Your task to perform on an android device: Open Google Maps and go to "Timeline" Image 0: 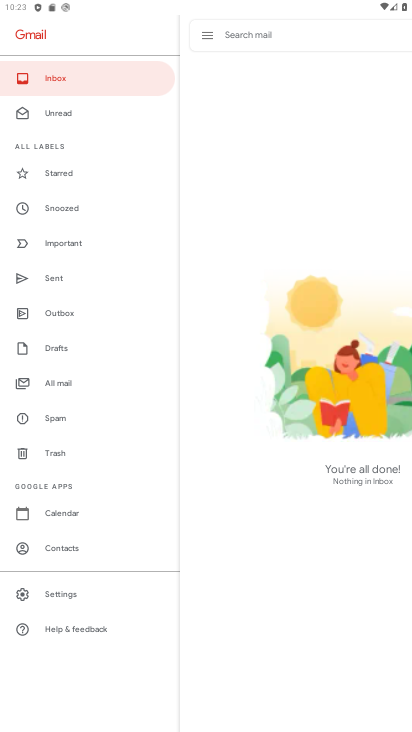
Step 0: press home button
Your task to perform on an android device: Open Google Maps and go to "Timeline" Image 1: 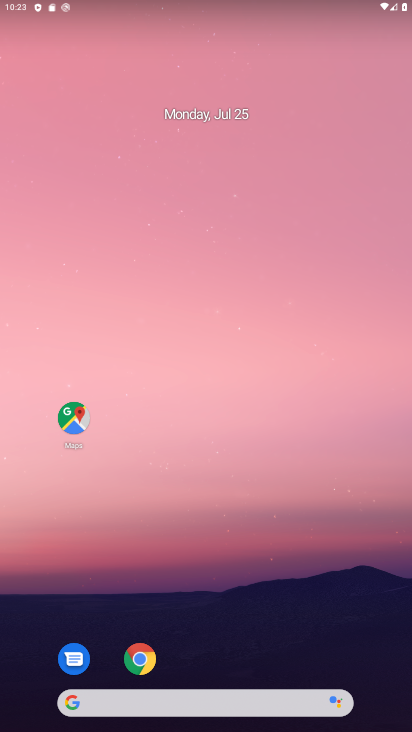
Step 1: press home button
Your task to perform on an android device: Open Google Maps and go to "Timeline" Image 2: 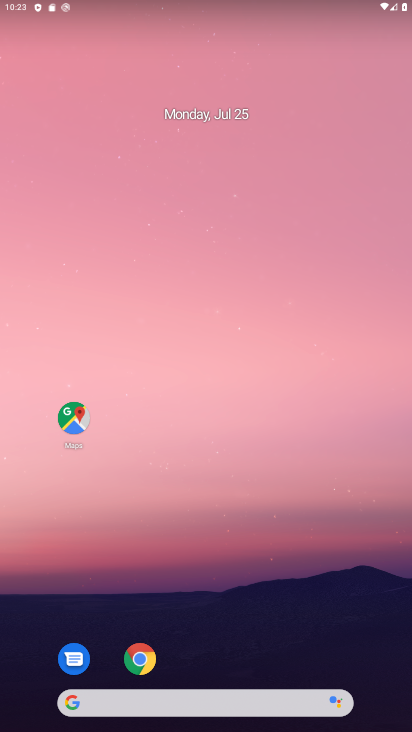
Step 2: drag from (213, 672) to (200, 104)
Your task to perform on an android device: Open Google Maps and go to "Timeline" Image 3: 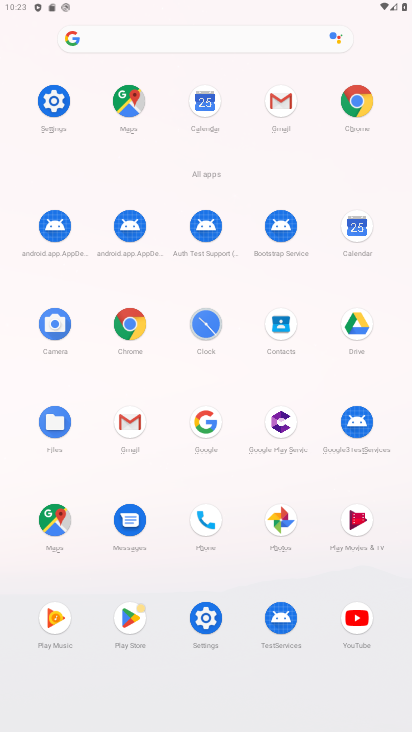
Step 3: click (43, 516)
Your task to perform on an android device: Open Google Maps and go to "Timeline" Image 4: 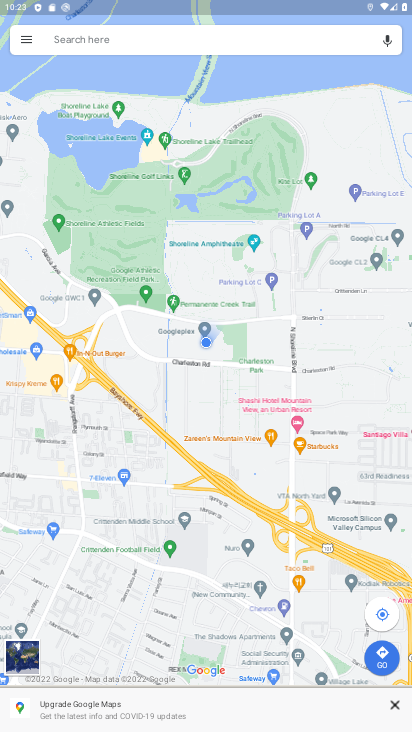
Step 4: click (26, 36)
Your task to perform on an android device: Open Google Maps and go to "Timeline" Image 5: 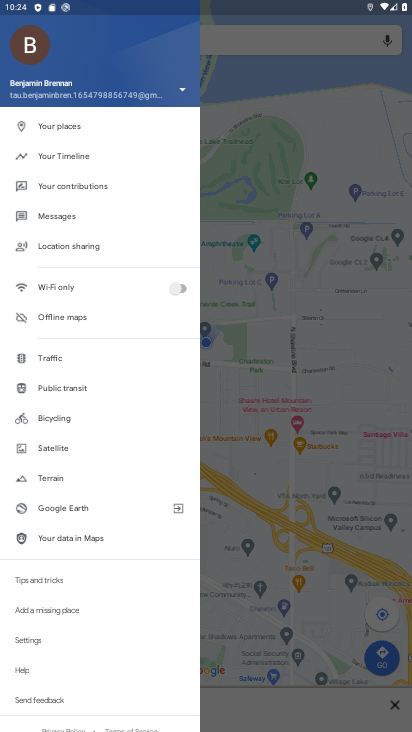
Step 5: click (51, 159)
Your task to perform on an android device: Open Google Maps and go to "Timeline" Image 6: 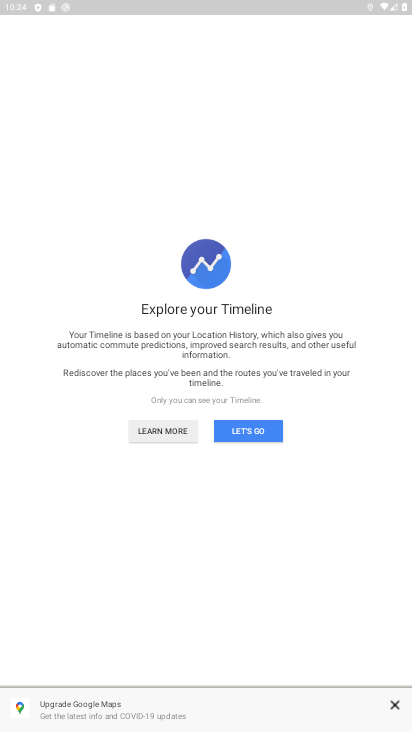
Step 6: click (244, 431)
Your task to perform on an android device: Open Google Maps and go to "Timeline" Image 7: 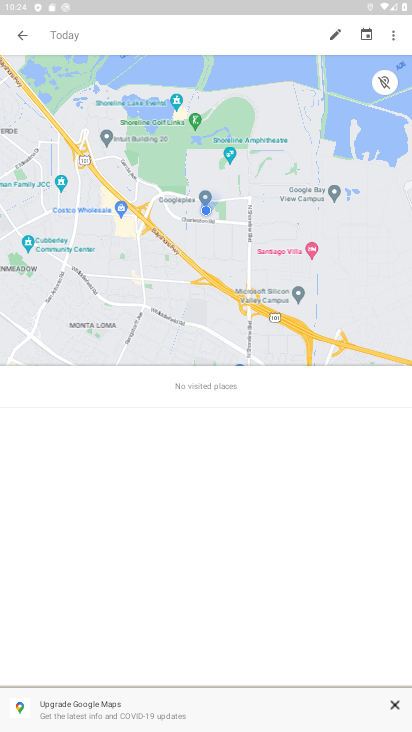
Step 7: task complete